Your task to perform on an android device: turn on priority inbox in the gmail app Image 0: 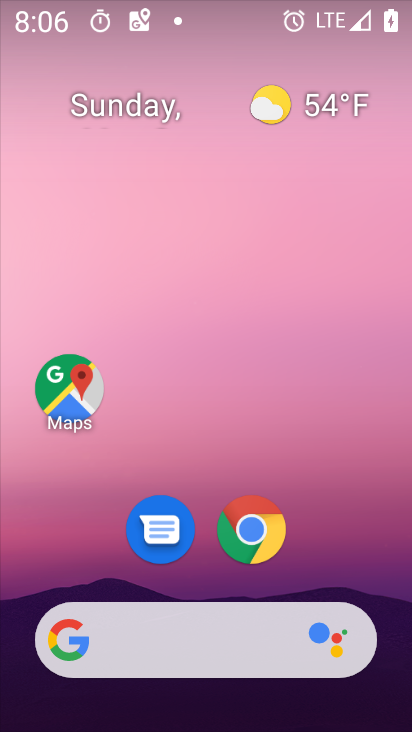
Step 0: drag from (204, 574) to (232, 39)
Your task to perform on an android device: turn on priority inbox in the gmail app Image 1: 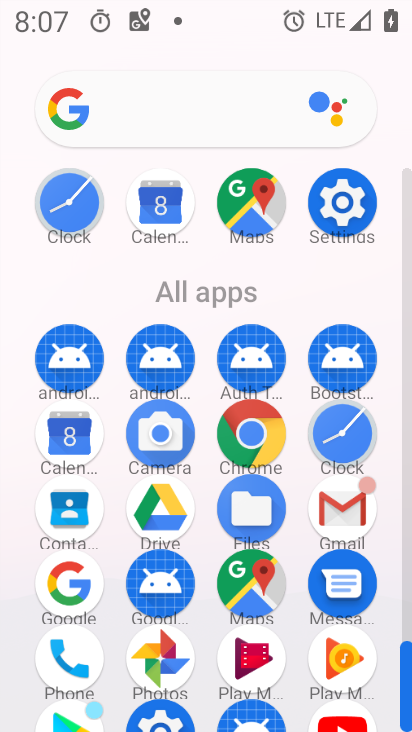
Step 1: click (356, 501)
Your task to perform on an android device: turn on priority inbox in the gmail app Image 2: 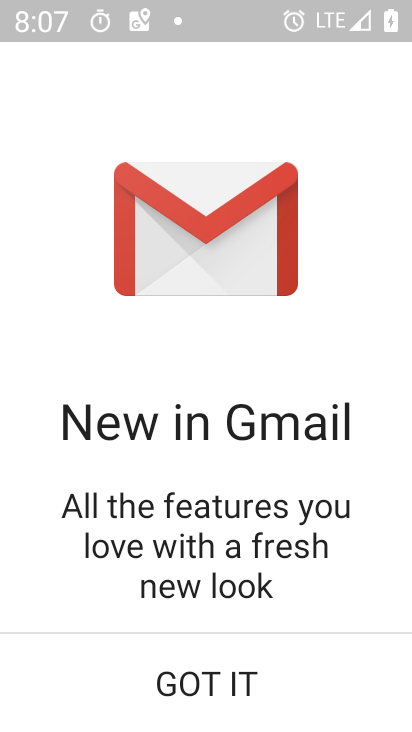
Step 2: click (255, 667)
Your task to perform on an android device: turn on priority inbox in the gmail app Image 3: 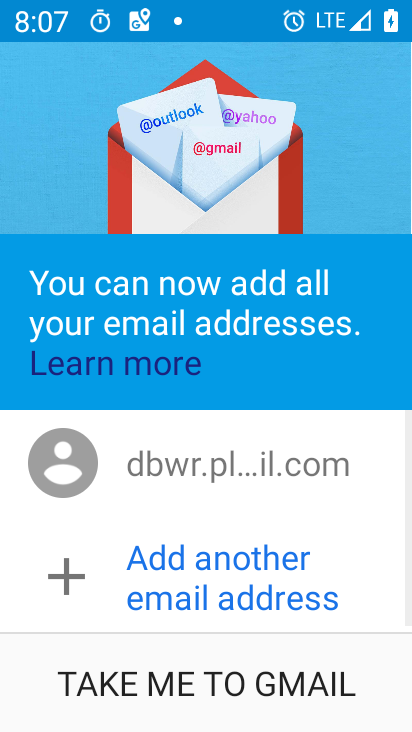
Step 3: click (255, 667)
Your task to perform on an android device: turn on priority inbox in the gmail app Image 4: 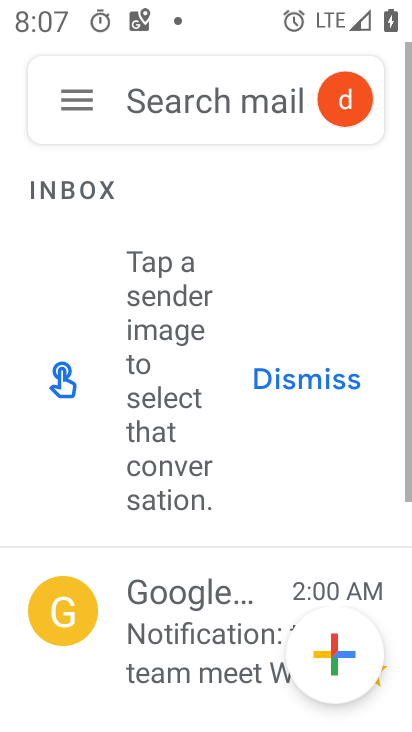
Step 4: click (82, 104)
Your task to perform on an android device: turn on priority inbox in the gmail app Image 5: 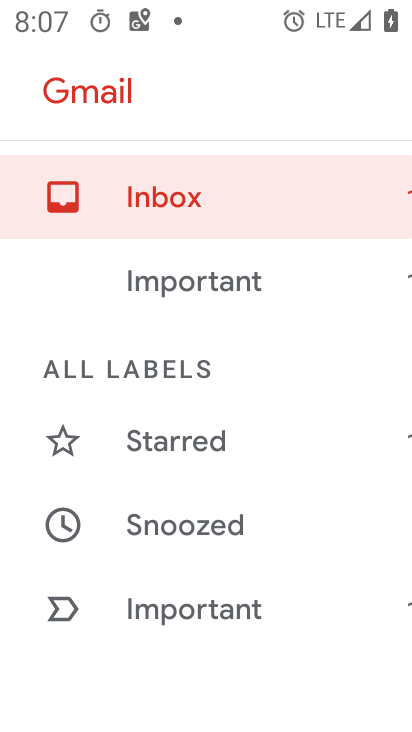
Step 5: drag from (153, 500) to (225, 119)
Your task to perform on an android device: turn on priority inbox in the gmail app Image 6: 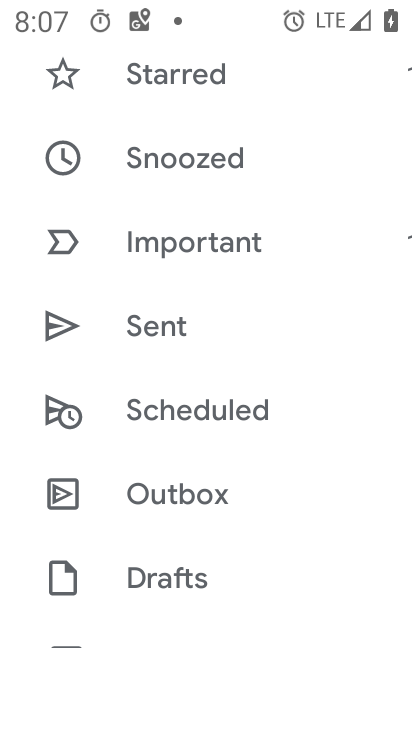
Step 6: drag from (162, 539) to (238, 187)
Your task to perform on an android device: turn on priority inbox in the gmail app Image 7: 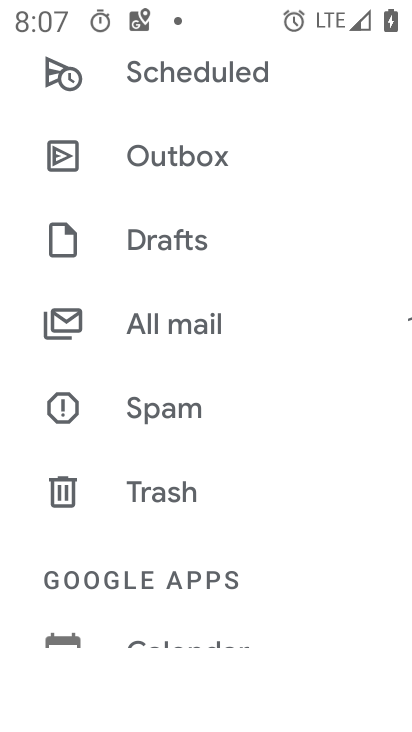
Step 7: drag from (131, 539) to (225, 267)
Your task to perform on an android device: turn on priority inbox in the gmail app Image 8: 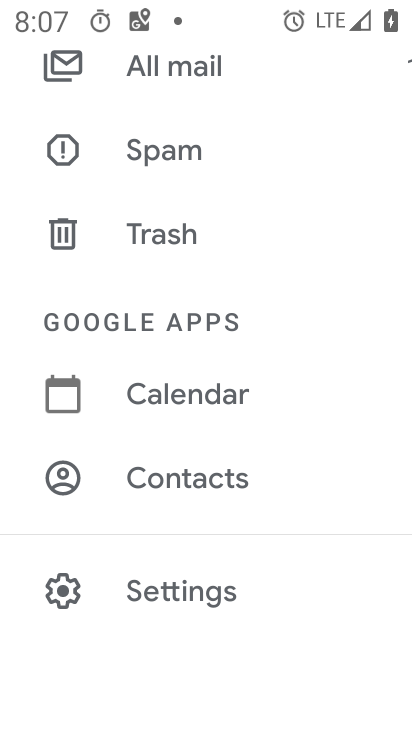
Step 8: click (190, 586)
Your task to perform on an android device: turn on priority inbox in the gmail app Image 9: 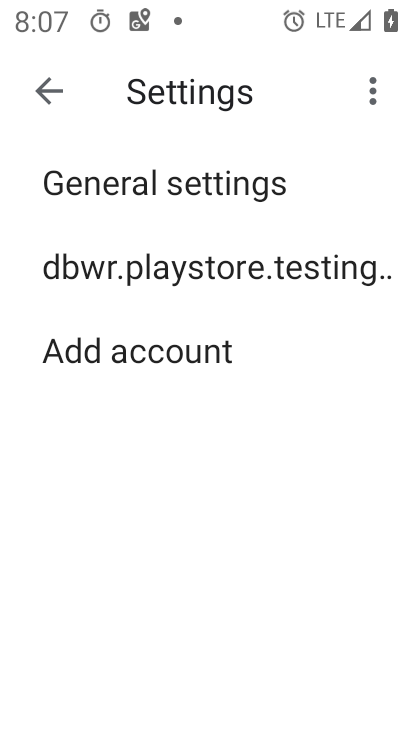
Step 9: click (144, 290)
Your task to perform on an android device: turn on priority inbox in the gmail app Image 10: 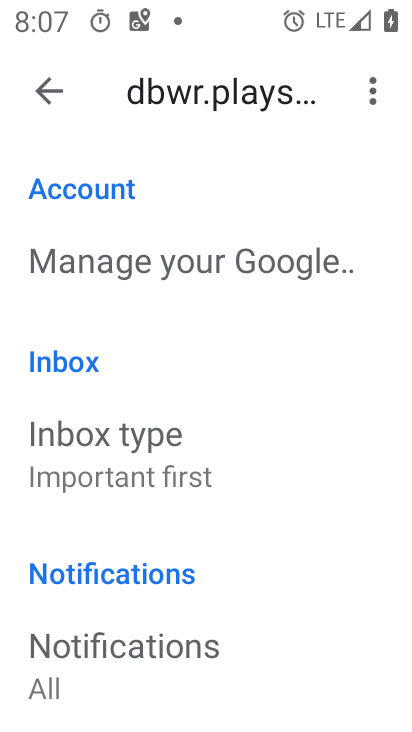
Step 10: click (124, 452)
Your task to perform on an android device: turn on priority inbox in the gmail app Image 11: 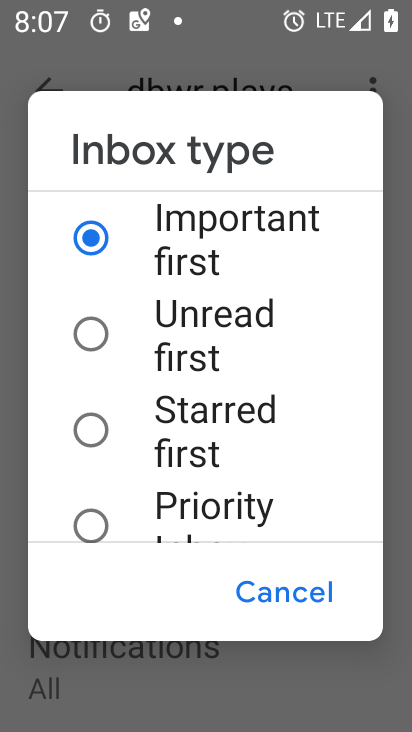
Step 11: click (99, 509)
Your task to perform on an android device: turn on priority inbox in the gmail app Image 12: 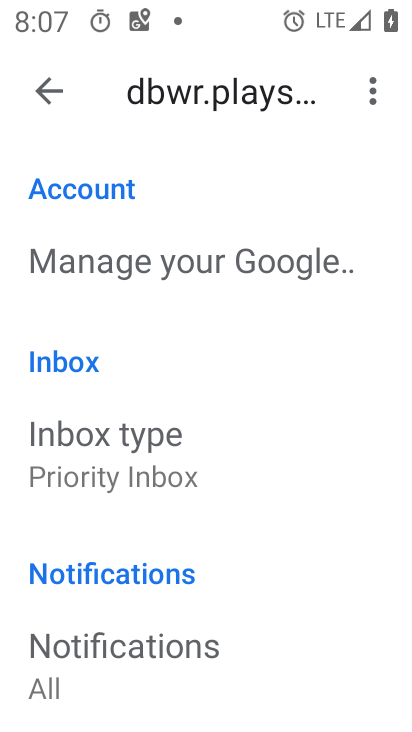
Step 12: task complete